Your task to perform on an android device: Open CNN.com Image 0: 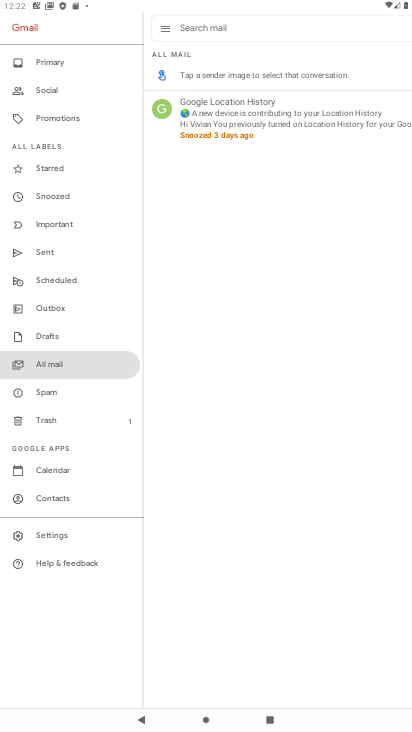
Step 0: press home button
Your task to perform on an android device: Open CNN.com Image 1: 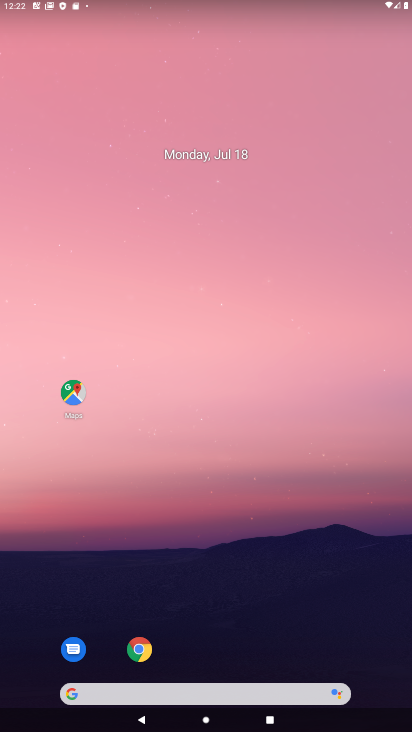
Step 1: click (137, 656)
Your task to perform on an android device: Open CNN.com Image 2: 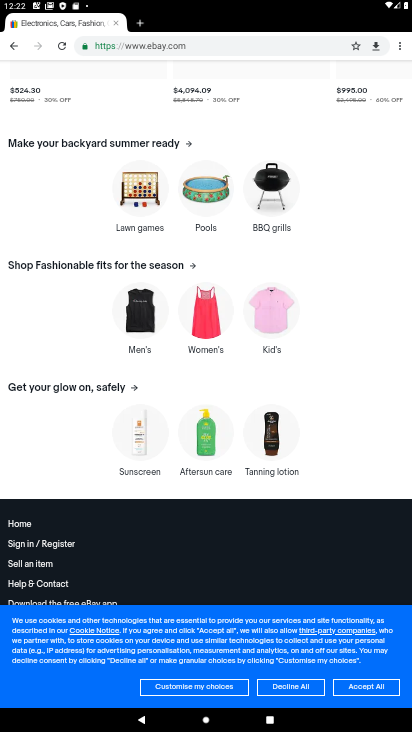
Step 2: click (216, 42)
Your task to perform on an android device: Open CNN.com Image 3: 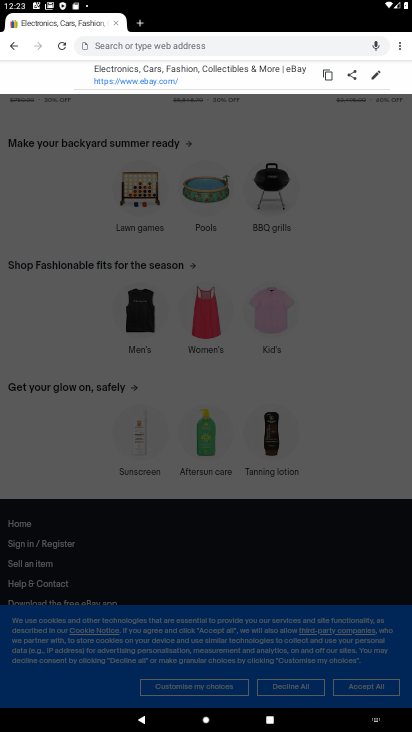
Step 3: type "CNN.com"
Your task to perform on an android device: Open CNN.com Image 4: 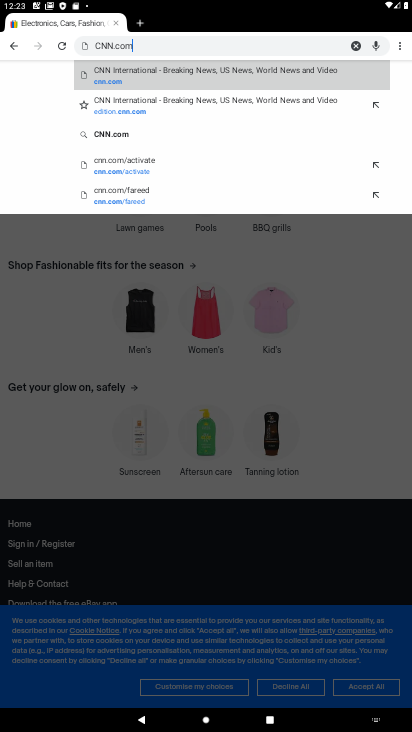
Step 4: click (109, 65)
Your task to perform on an android device: Open CNN.com Image 5: 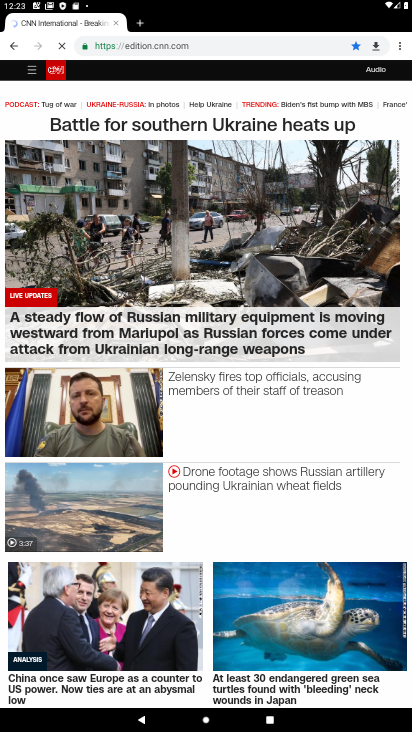
Step 5: task complete